Your task to perform on an android device: Go to Wikipedia Image 0: 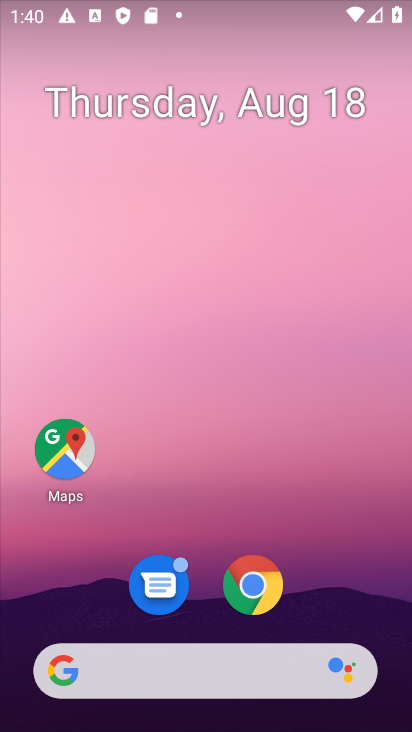
Step 0: click (258, 588)
Your task to perform on an android device: Go to Wikipedia Image 1: 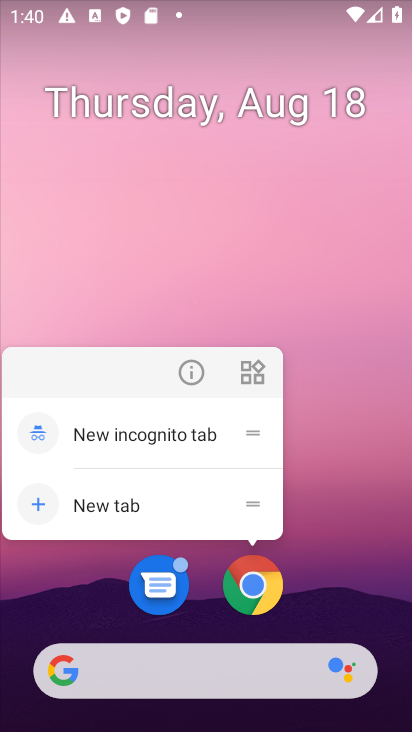
Step 1: click (257, 579)
Your task to perform on an android device: Go to Wikipedia Image 2: 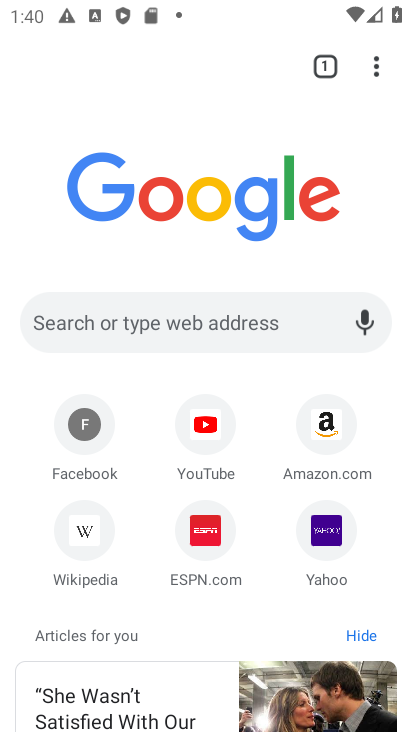
Step 2: click (89, 531)
Your task to perform on an android device: Go to Wikipedia Image 3: 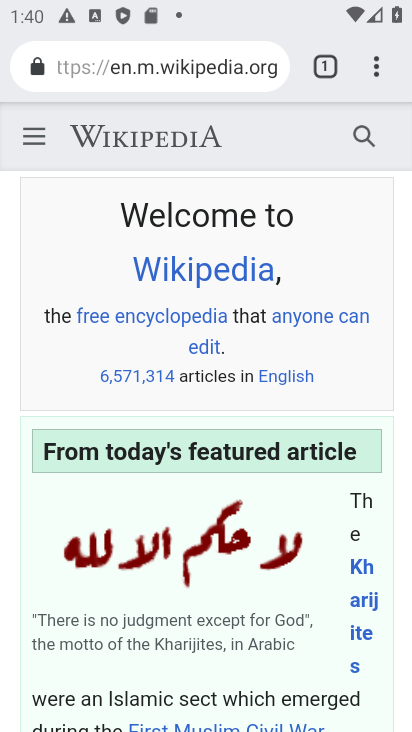
Step 3: task complete